Your task to perform on an android device: change alarm snooze length Image 0: 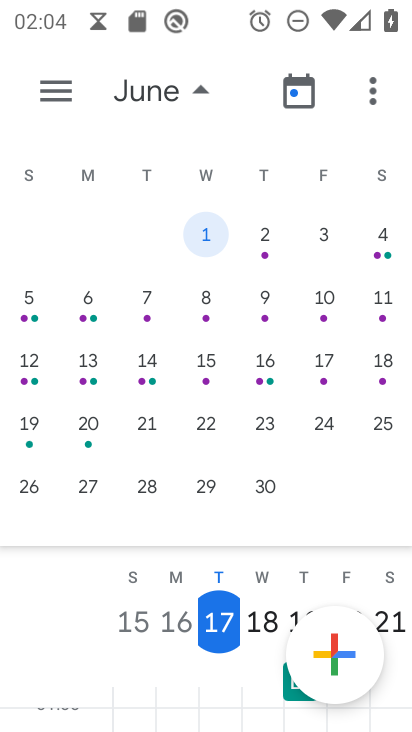
Step 0: press home button
Your task to perform on an android device: change alarm snooze length Image 1: 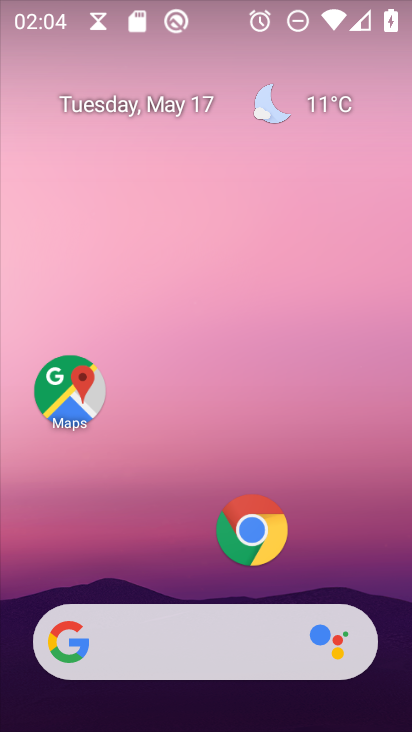
Step 1: drag from (322, 462) to (364, 88)
Your task to perform on an android device: change alarm snooze length Image 2: 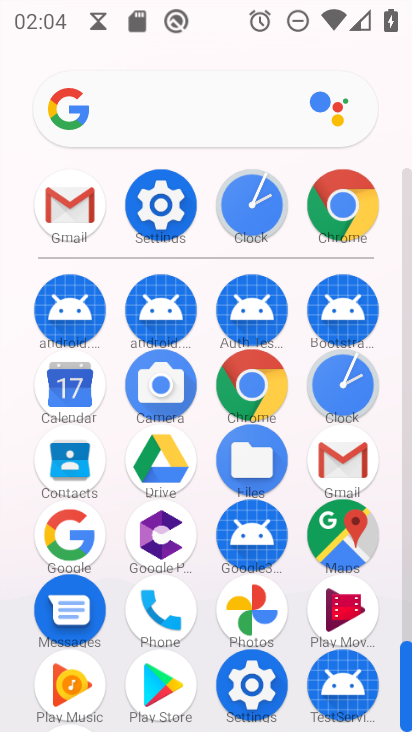
Step 2: click (229, 197)
Your task to perform on an android device: change alarm snooze length Image 3: 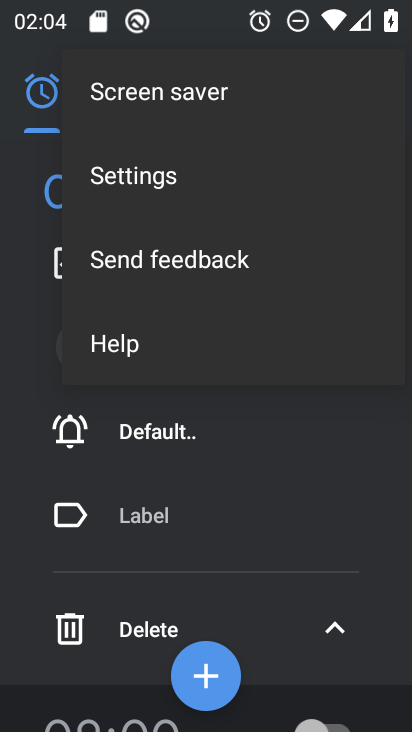
Step 3: click (286, 510)
Your task to perform on an android device: change alarm snooze length Image 4: 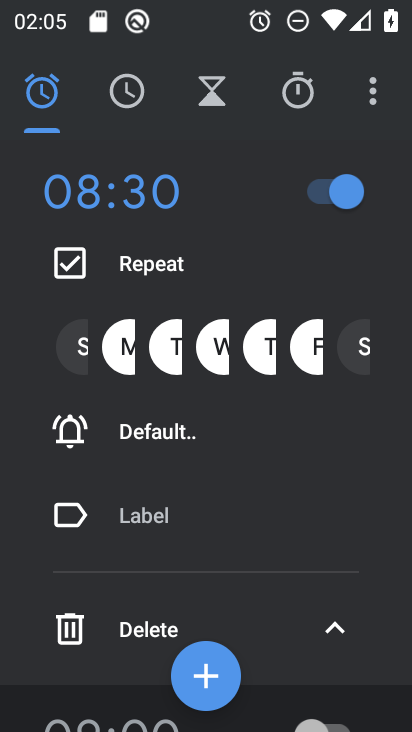
Step 4: click (128, 81)
Your task to perform on an android device: change alarm snooze length Image 5: 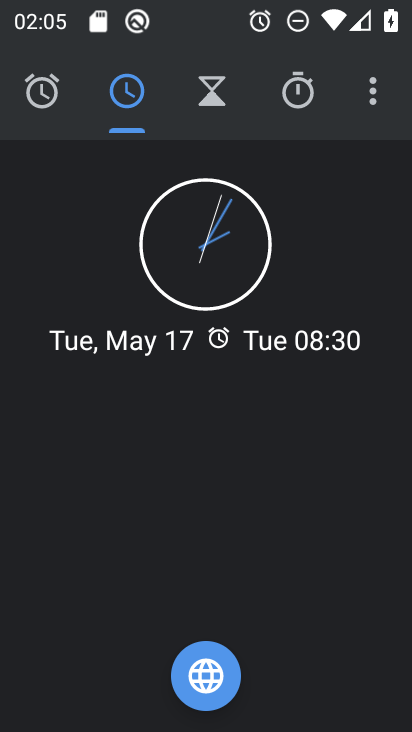
Step 5: click (27, 86)
Your task to perform on an android device: change alarm snooze length Image 6: 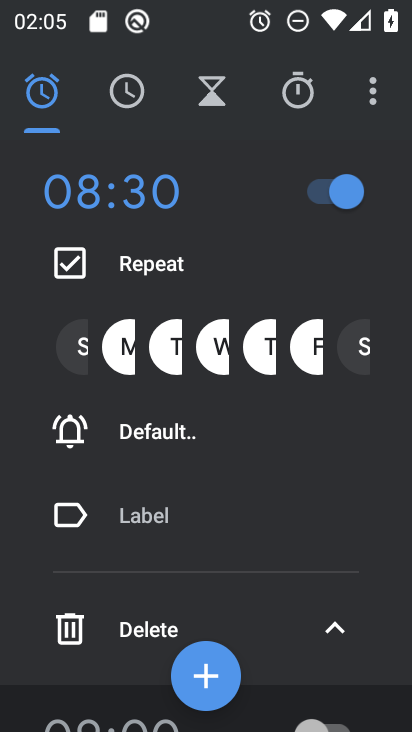
Step 6: click (130, 204)
Your task to perform on an android device: change alarm snooze length Image 7: 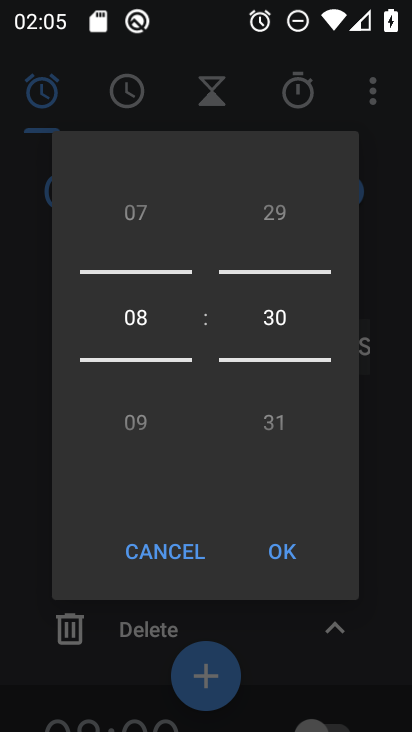
Step 7: click (282, 552)
Your task to perform on an android device: change alarm snooze length Image 8: 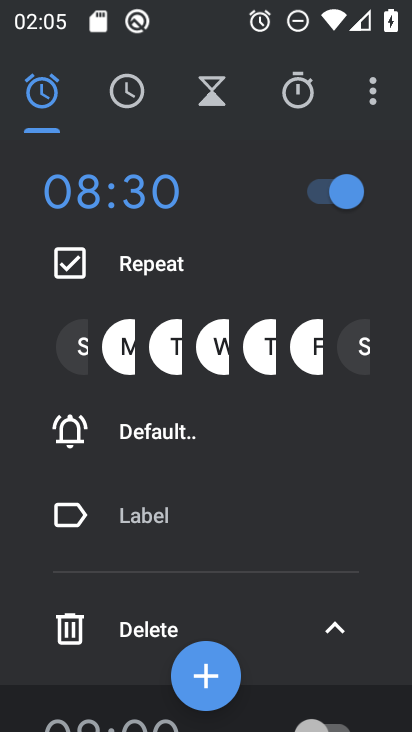
Step 8: drag from (216, 530) to (224, 332)
Your task to perform on an android device: change alarm snooze length Image 9: 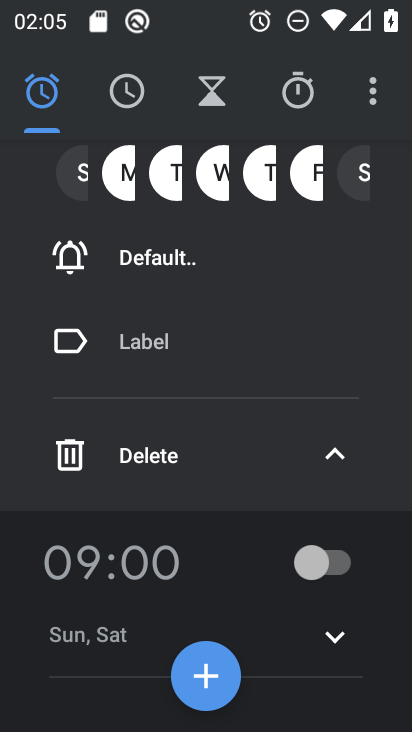
Step 9: drag from (286, 327) to (296, 611)
Your task to perform on an android device: change alarm snooze length Image 10: 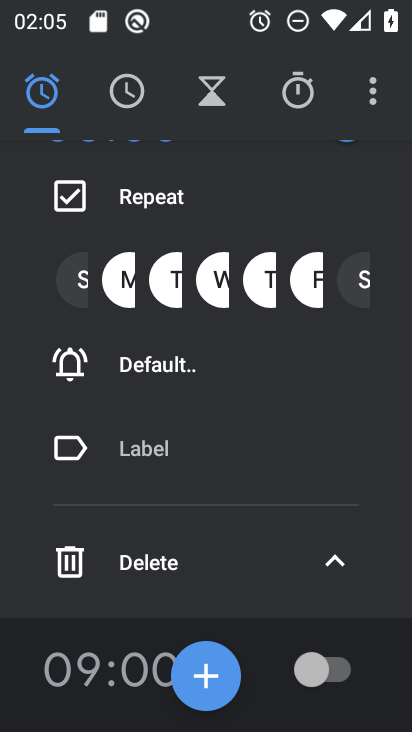
Step 10: click (369, 185)
Your task to perform on an android device: change alarm snooze length Image 11: 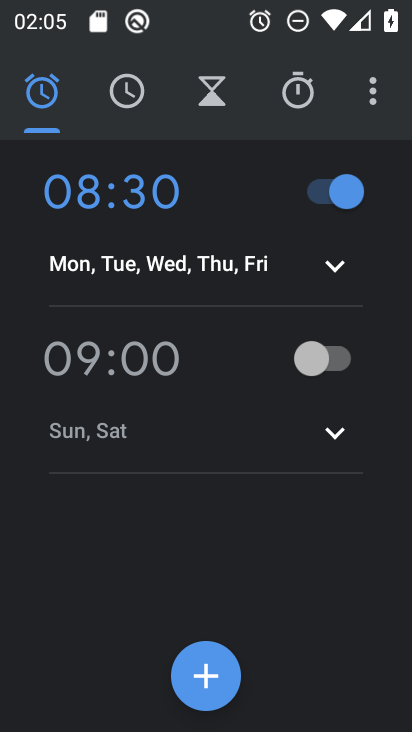
Step 11: click (326, 258)
Your task to perform on an android device: change alarm snooze length Image 12: 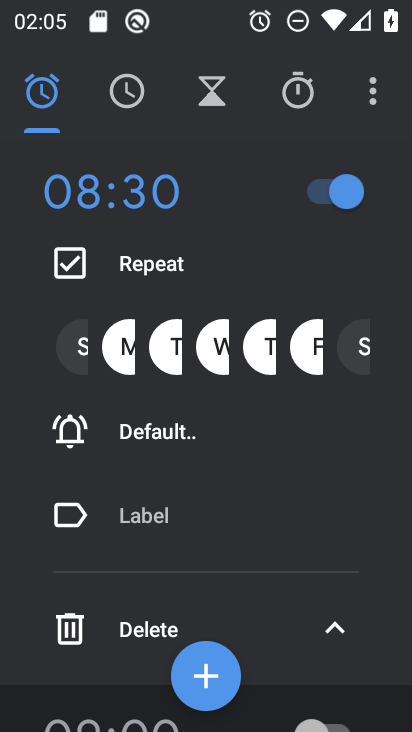
Step 12: click (369, 90)
Your task to perform on an android device: change alarm snooze length Image 13: 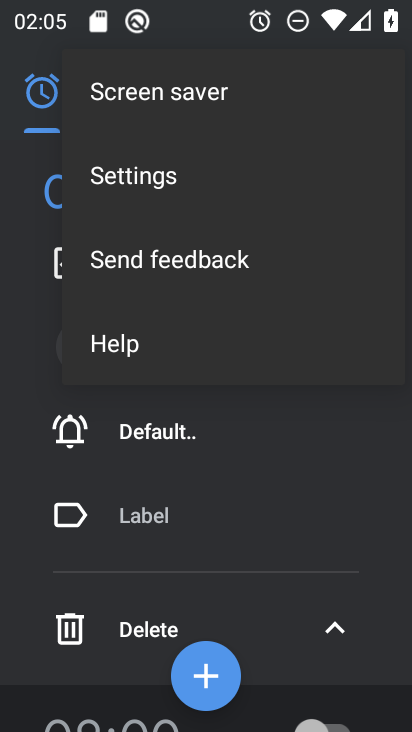
Step 13: click (270, 171)
Your task to perform on an android device: change alarm snooze length Image 14: 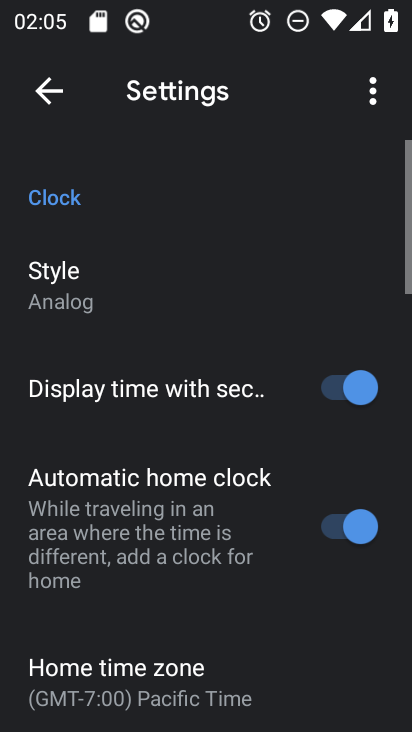
Step 14: drag from (149, 570) to (166, 275)
Your task to perform on an android device: change alarm snooze length Image 15: 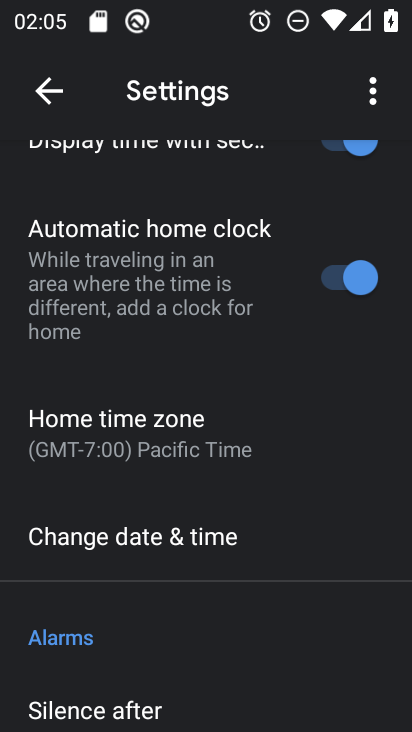
Step 15: drag from (206, 525) to (198, 193)
Your task to perform on an android device: change alarm snooze length Image 16: 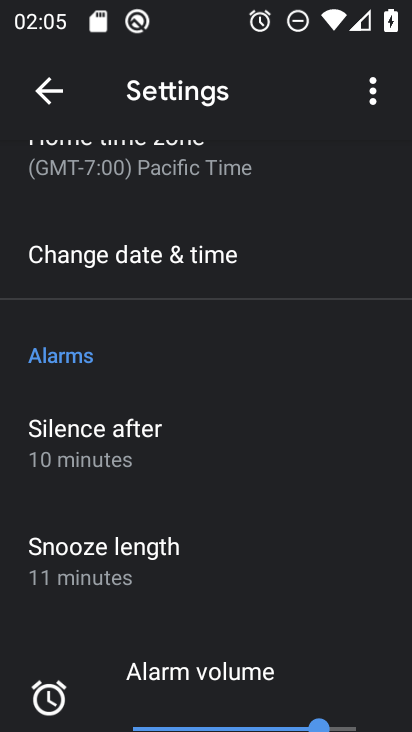
Step 16: drag from (198, 490) to (198, 272)
Your task to perform on an android device: change alarm snooze length Image 17: 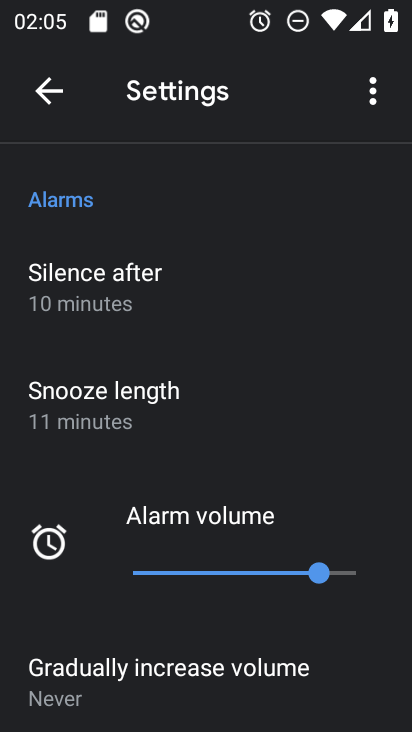
Step 17: click (175, 387)
Your task to perform on an android device: change alarm snooze length Image 18: 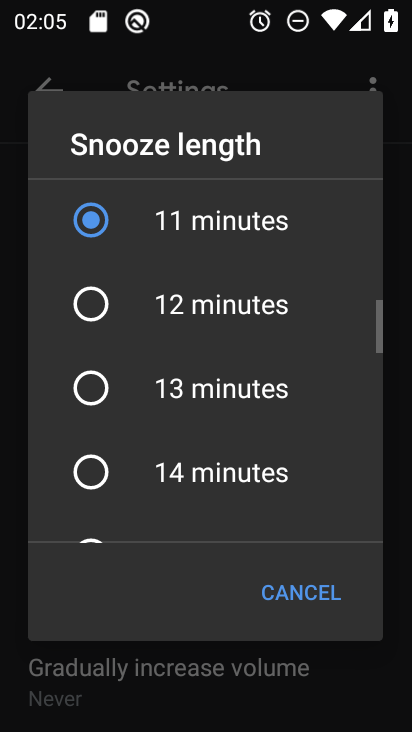
Step 18: click (194, 305)
Your task to perform on an android device: change alarm snooze length Image 19: 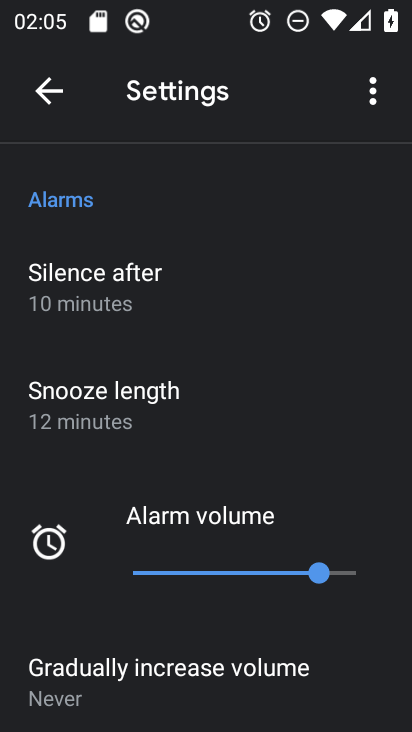
Step 19: task complete